Your task to perform on an android device: Open Google Image 0: 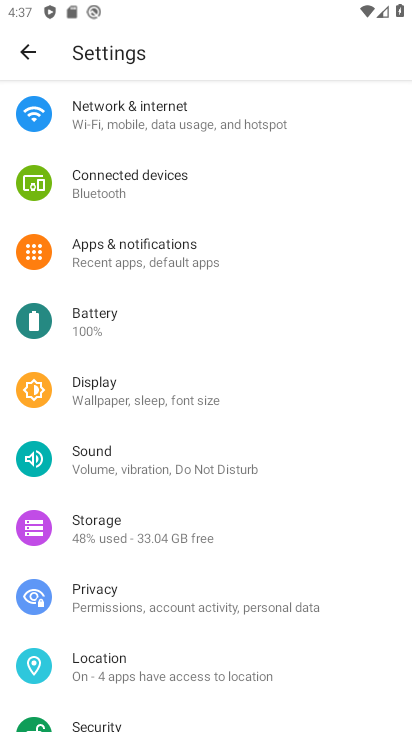
Step 0: press home button
Your task to perform on an android device: Open Google Image 1: 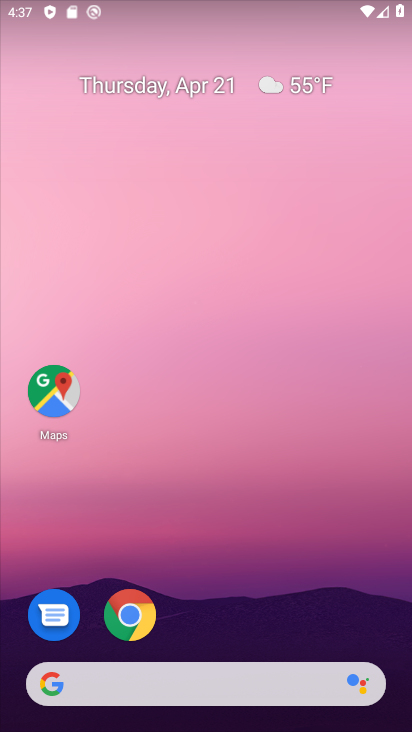
Step 1: drag from (195, 286) to (195, 139)
Your task to perform on an android device: Open Google Image 2: 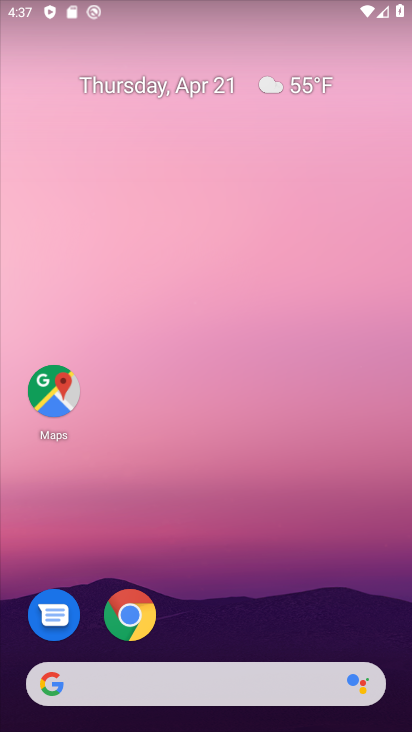
Step 2: drag from (204, 487) to (217, 113)
Your task to perform on an android device: Open Google Image 3: 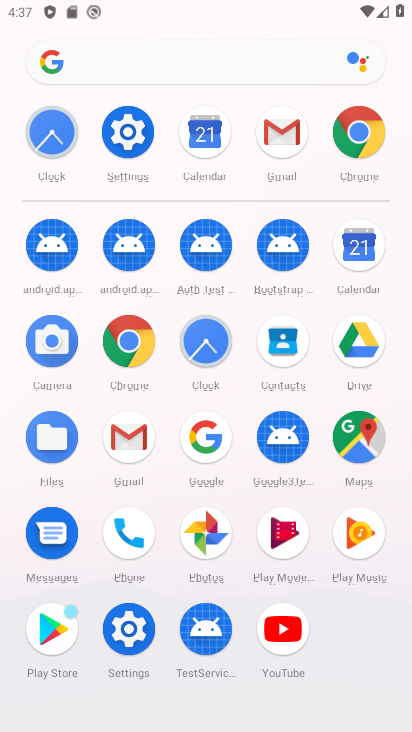
Step 3: click (194, 452)
Your task to perform on an android device: Open Google Image 4: 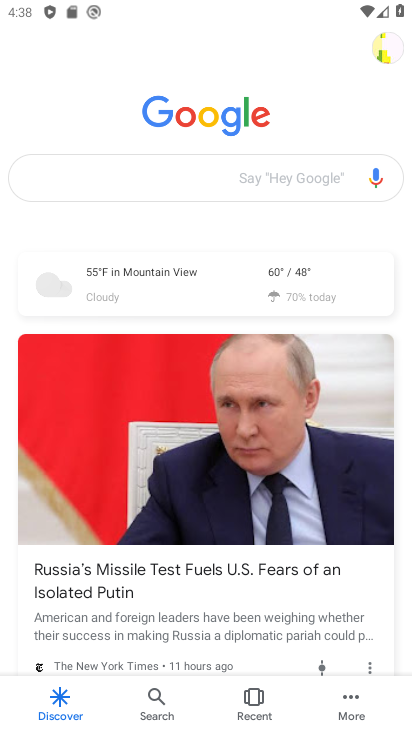
Step 4: task complete